Your task to perform on an android device: change notification settings in the gmail app Image 0: 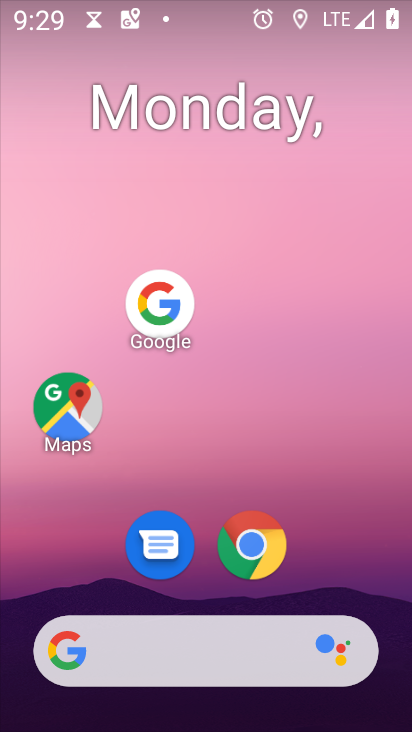
Step 0: press home button
Your task to perform on an android device: change notification settings in the gmail app Image 1: 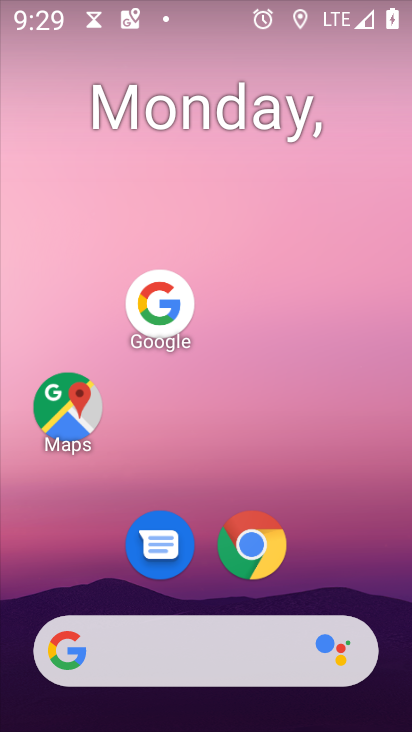
Step 1: drag from (160, 646) to (307, 202)
Your task to perform on an android device: change notification settings in the gmail app Image 2: 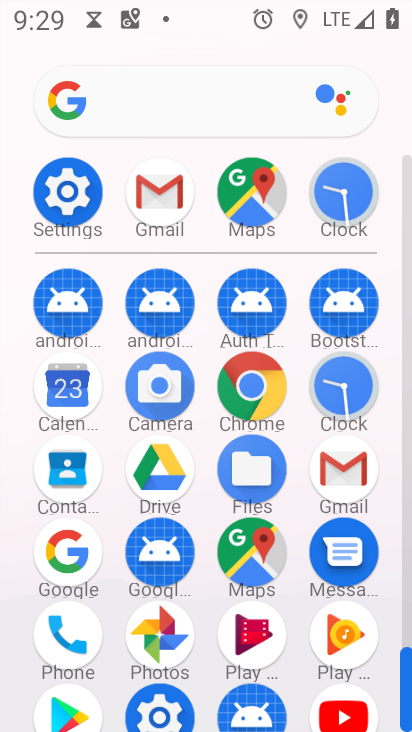
Step 2: click (161, 208)
Your task to perform on an android device: change notification settings in the gmail app Image 3: 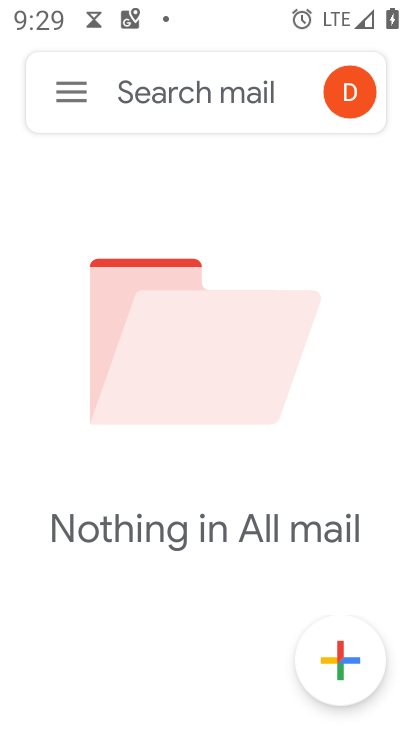
Step 3: click (67, 87)
Your task to perform on an android device: change notification settings in the gmail app Image 4: 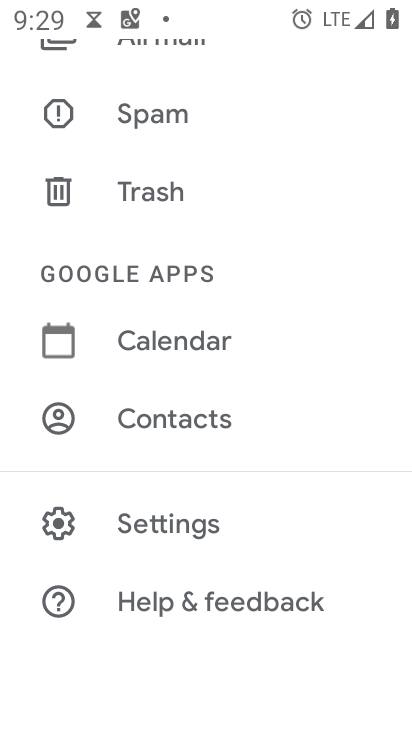
Step 4: click (174, 524)
Your task to perform on an android device: change notification settings in the gmail app Image 5: 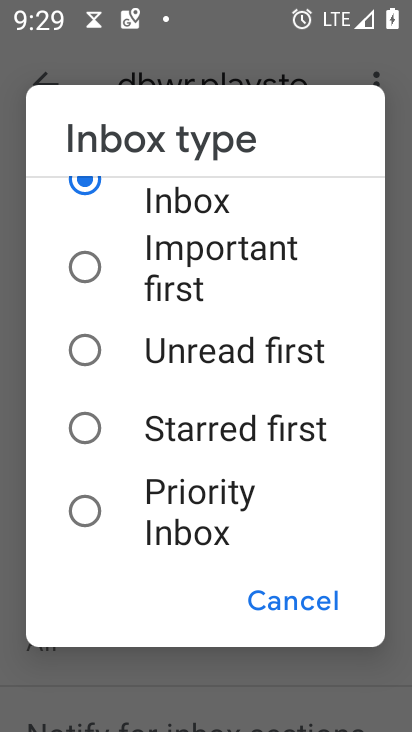
Step 5: click (269, 602)
Your task to perform on an android device: change notification settings in the gmail app Image 6: 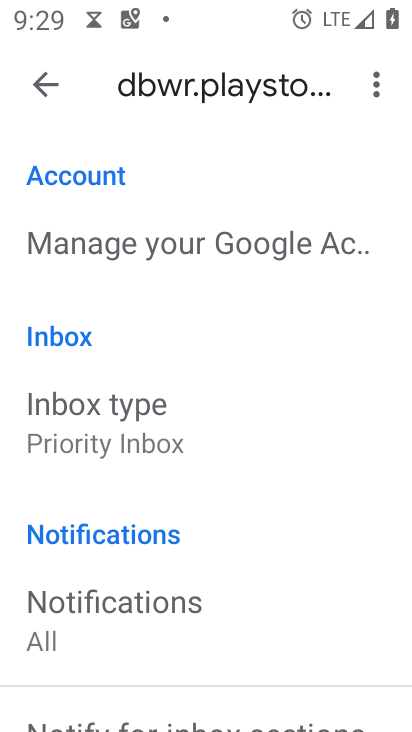
Step 6: drag from (192, 598) to (266, 357)
Your task to perform on an android device: change notification settings in the gmail app Image 7: 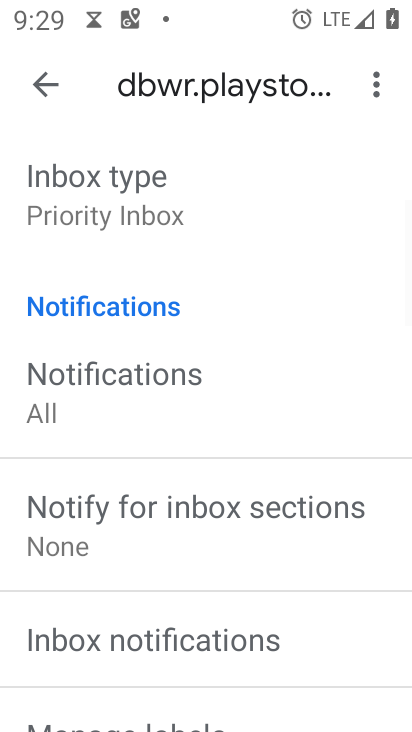
Step 7: click (137, 416)
Your task to perform on an android device: change notification settings in the gmail app Image 8: 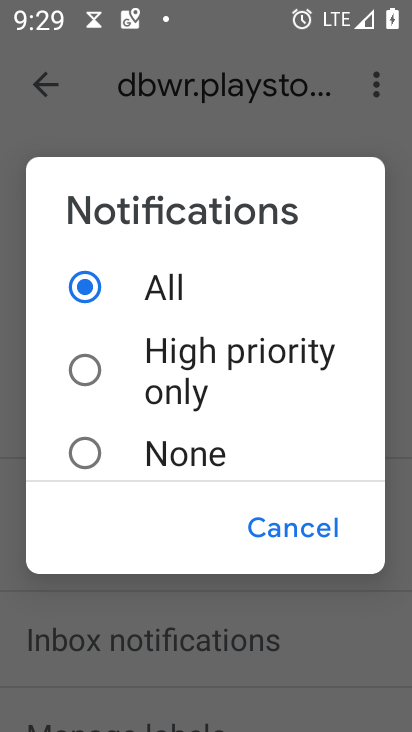
Step 8: click (79, 453)
Your task to perform on an android device: change notification settings in the gmail app Image 9: 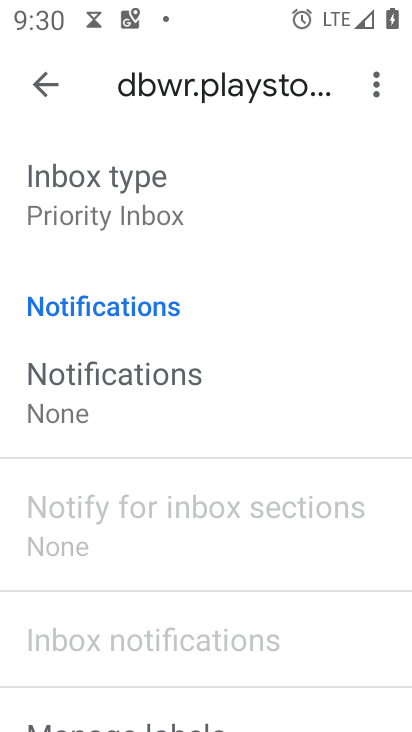
Step 9: task complete